Your task to perform on an android device: Open privacy settings Image 0: 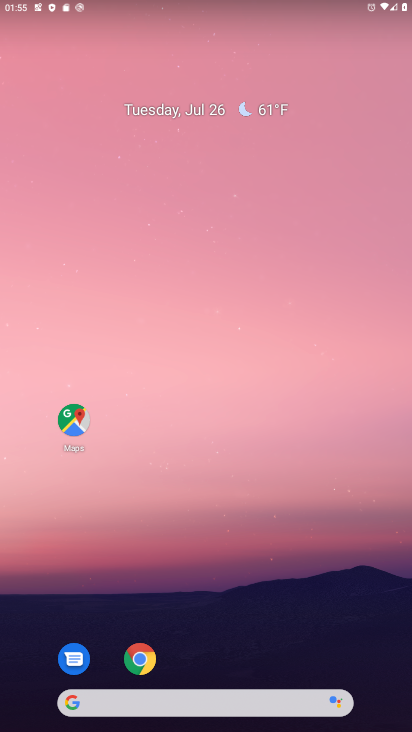
Step 0: drag from (244, 581) to (89, 0)
Your task to perform on an android device: Open privacy settings Image 1: 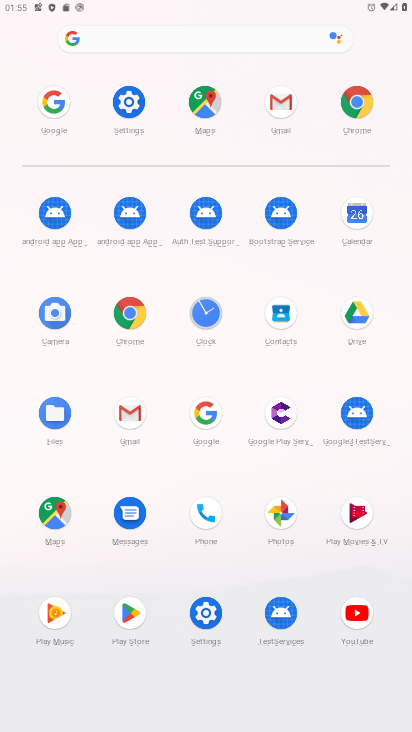
Step 1: click (126, 108)
Your task to perform on an android device: Open privacy settings Image 2: 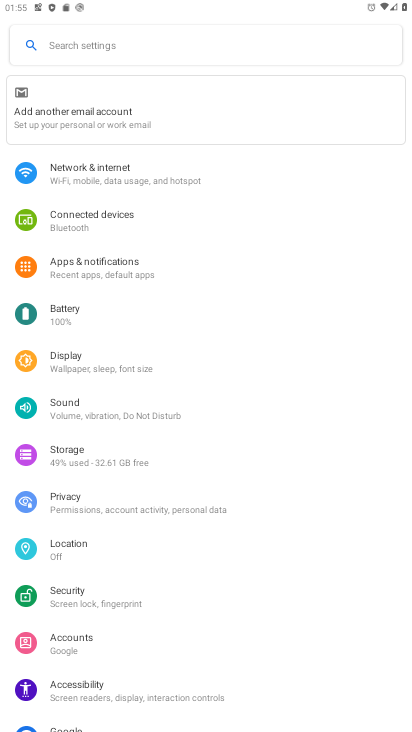
Step 2: drag from (221, 638) to (197, 449)
Your task to perform on an android device: Open privacy settings Image 3: 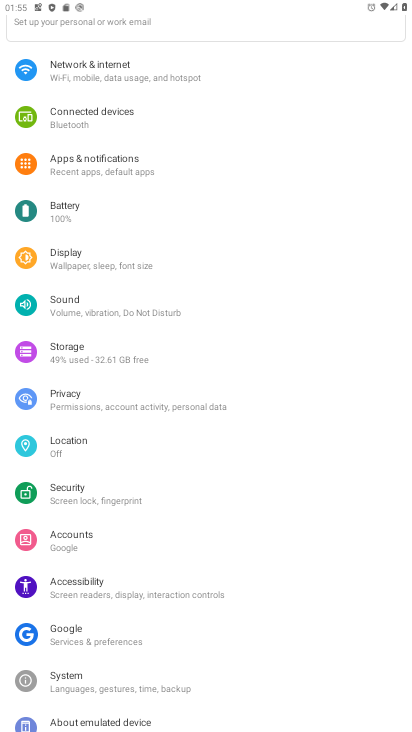
Step 3: click (85, 403)
Your task to perform on an android device: Open privacy settings Image 4: 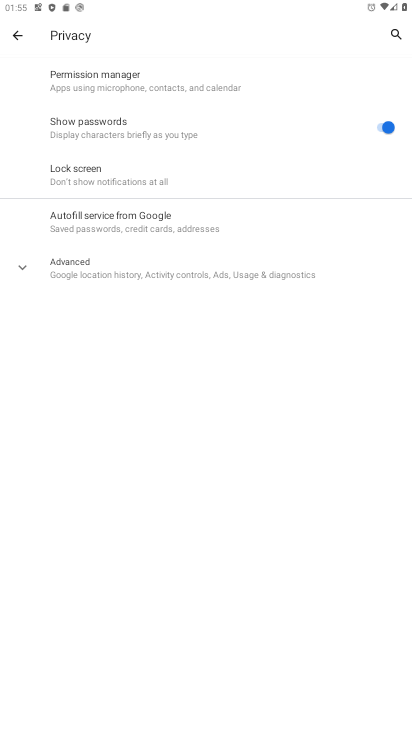
Step 4: task complete